Your task to perform on an android device: toggle priority inbox in the gmail app Image 0: 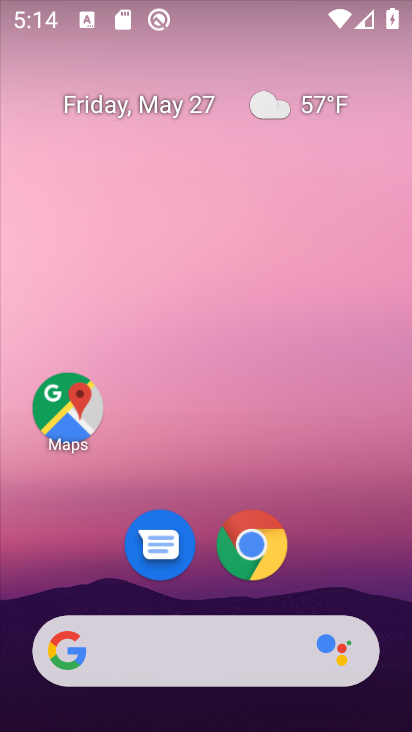
Step 0: click (248, 540)
Your task to perform on an android device: toggle priority inbox in the gmail app Image 1: 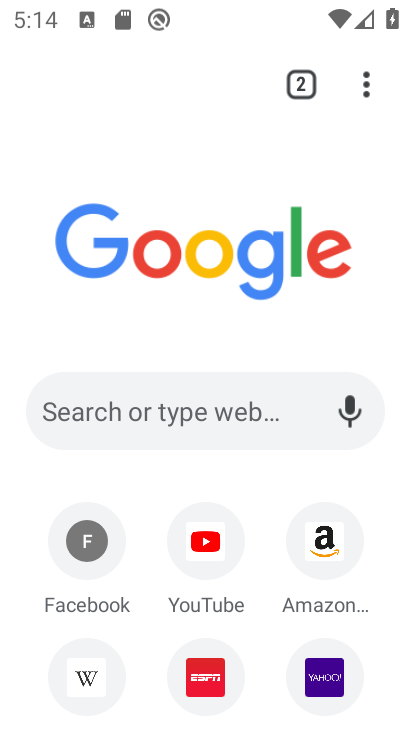
Step 1: press home button
Your task to perform on an android device: toggle priority inbox in the gmail app Image 2: 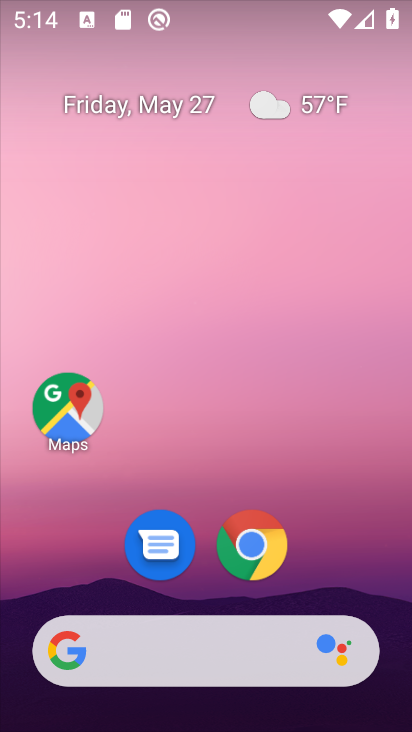
Step 2: drag from (388, 682) to (342, 88)
Your task to perform on an android device: toggle priority inbox in the gmail app Image 3: 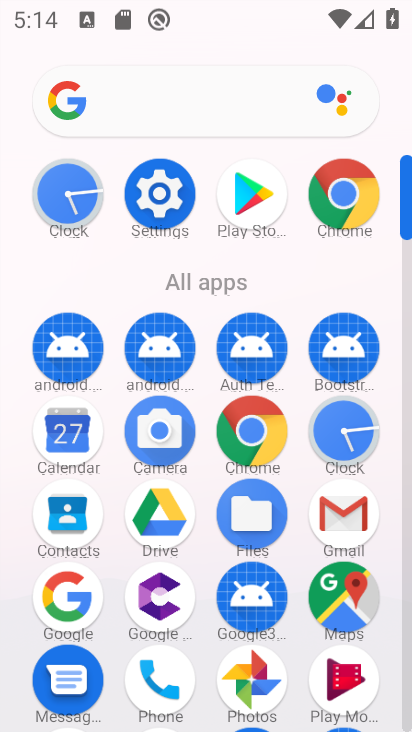
Step 3: click (359, 508)
Your task to perform on an android device: toggle priority inbox in the gmail app Image 4: 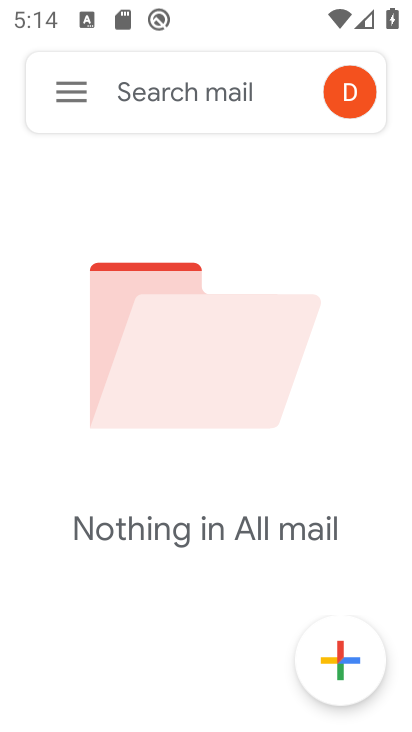
Step 4: click (66, 90)
Your task to perform on an android device: toggle priority inbox in the gmail app Image 5: 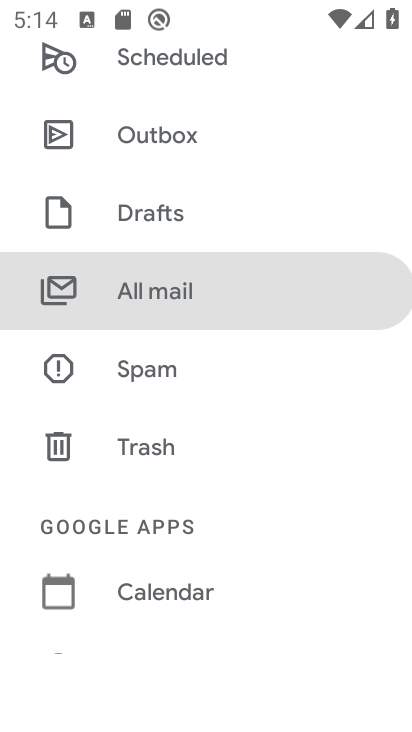
Step 5: drag from (277, 636) to (276, 227)
Your task to perform on an android device: toggle priority inbox in the gmail app Image 6: 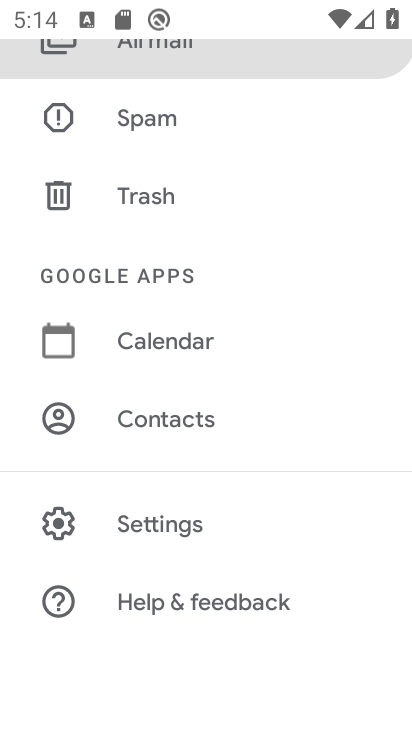
Step 6: click (142, 529)
Your task to perform on an android device: toggle priority inbox in the gmail app Image 7: 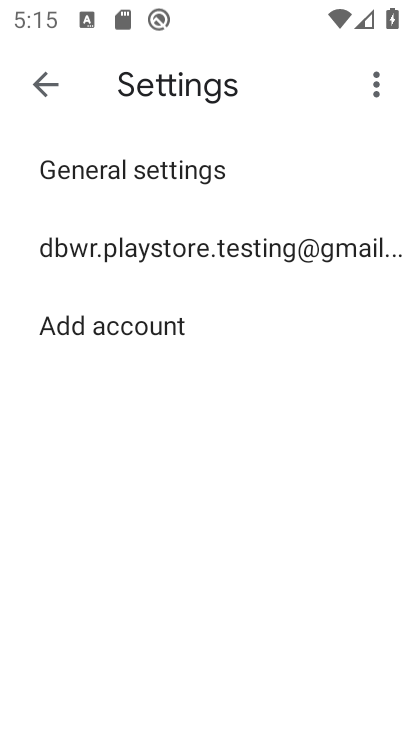
Step 7: click (92, 239)
Your task to perform on an android device: toggle priority inbox in the gmail app Image 8: 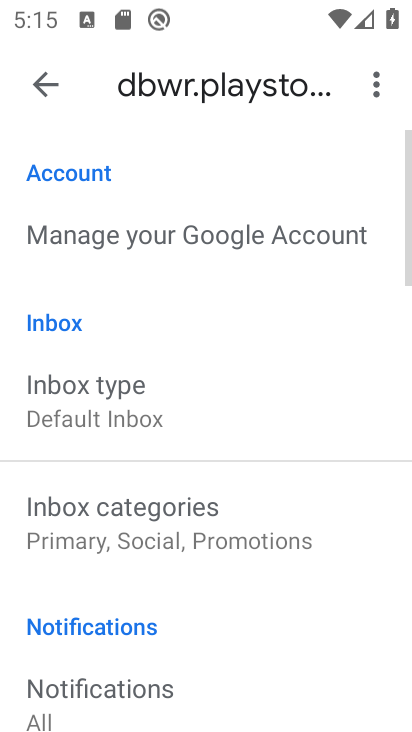
Step 8: click (85, 396)
Your task to perform on an android device: toggle priority inbox in the gmail app Image 9: 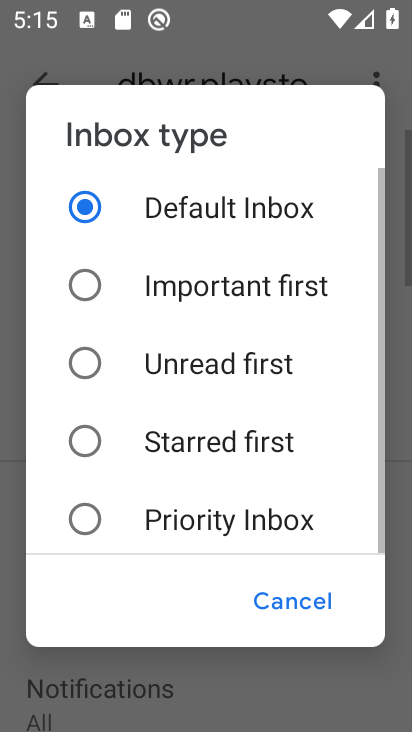
Step 9: click (95, 511)
Your task to perform on an android device: toggle priority inbox in the gmail app Image 10: 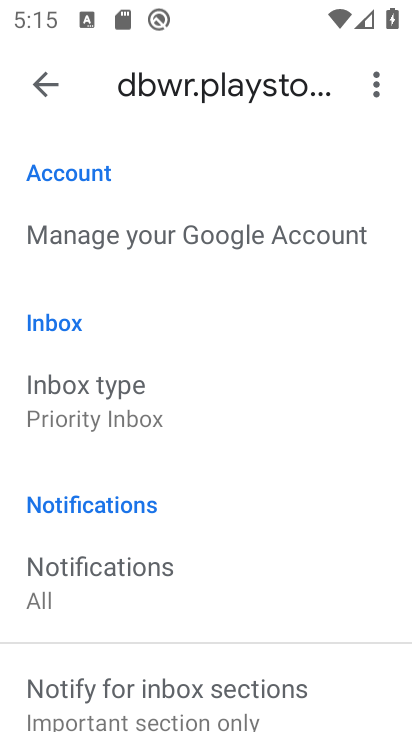
Step 10: task complete